Your task to perform on an android device: Play the last video I watched on Youtube Image 0: 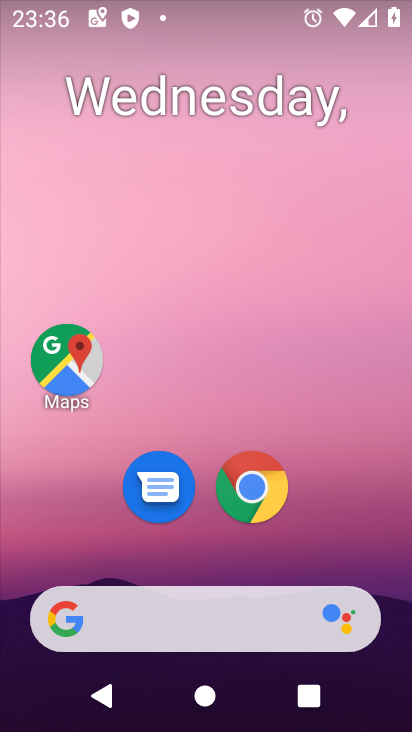
Step 0: drag from (358, 564) to (330, 8)
Your task to perform on an android device: Play the last video I watched on Youtube Image 1: 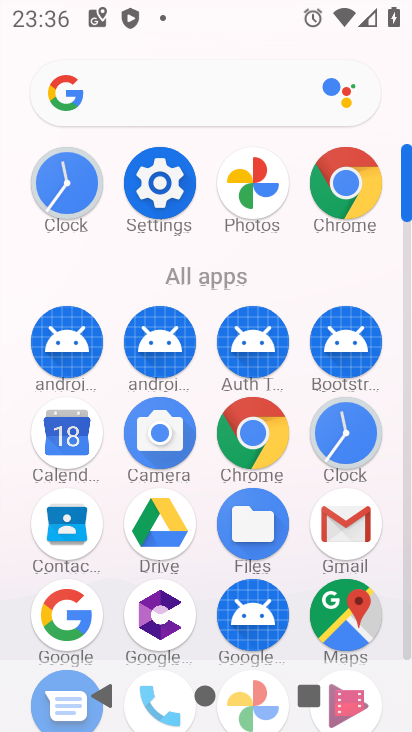
Step 1: drag from (407, 571) to (400, 527)
Your task to perform on an android device: Play the last video I watched on Youtube Image 2: 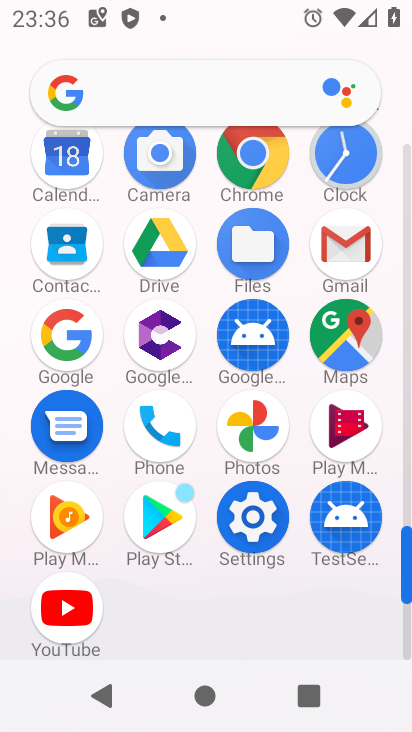
Step 2: click (67, 608)
Your task to perform on an android device: Play the last video I watched on Youtube Image 3: 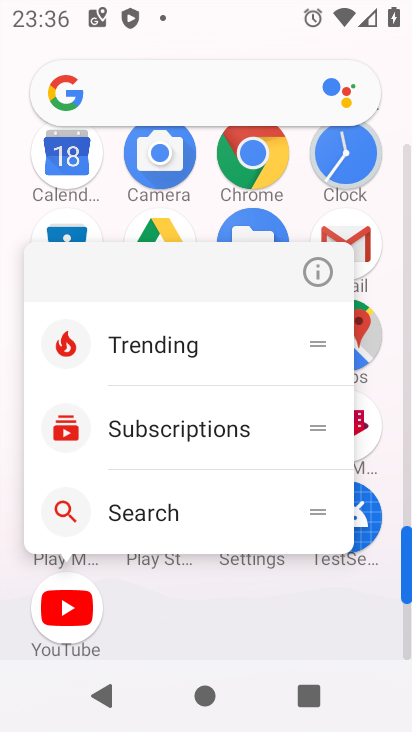
Step 3: click (67, 608)
Your task to perform on an android device: Play the last video I watched on Youtube Image 4: 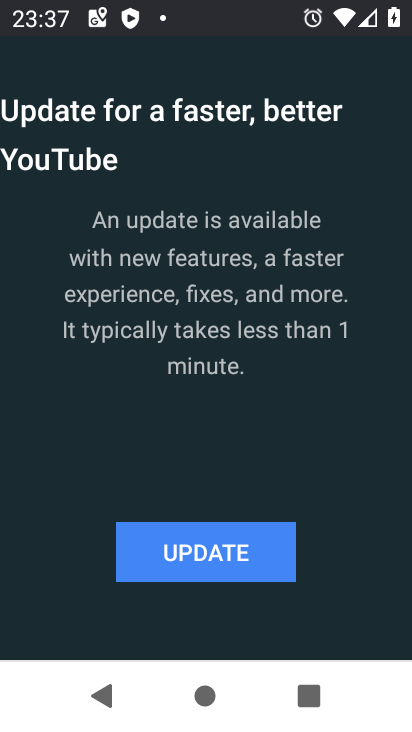
Step 4: click (200, 562)
Your task to perform on an android device: Play the last video I watched on Youtube Image 5: 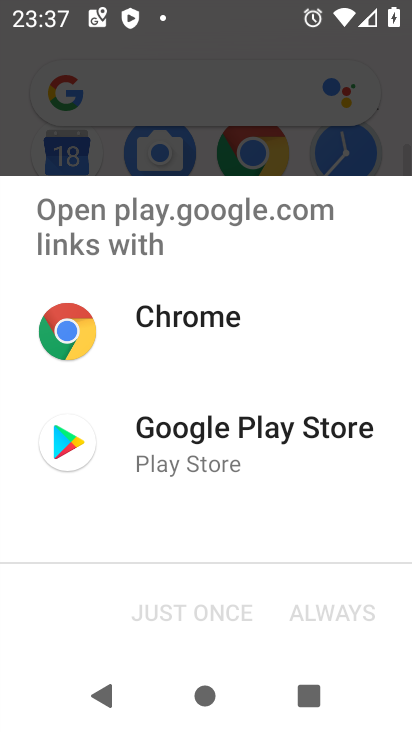
Step 5: click (181, 453)
Your task to perform on an android device: Play the last video I watched on Youtube Image 6: 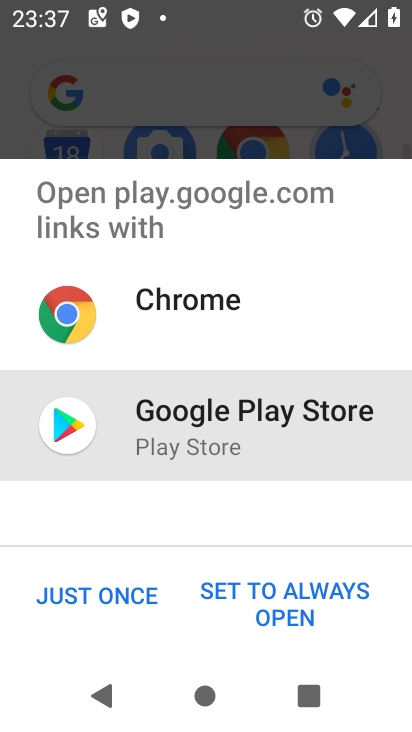
Step 6: click (73, 588)
Your task to perform on an android device: Play the last video I watched on Youtube Image 7: 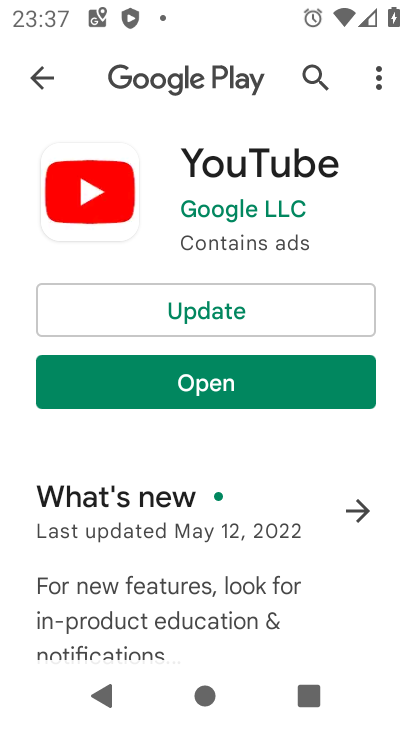
Step 7: click (195, 301)
Your task to perform on an android device: Play the last video I watched on Youtube Image 8: 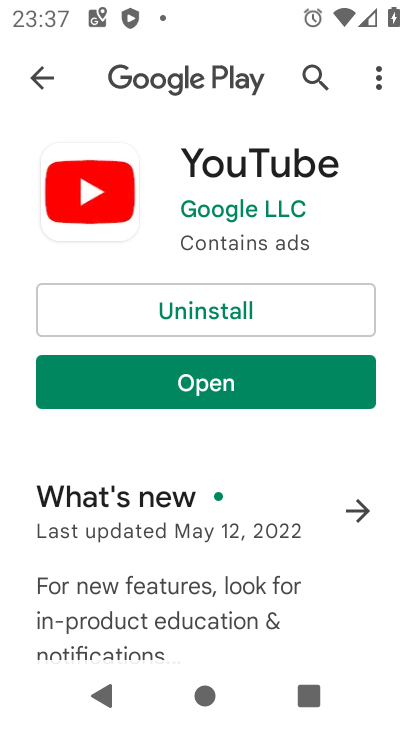
Step 8: click (227, 394)
Your task to perform on an android device: Play the last video I watched on Youtube Image 9: 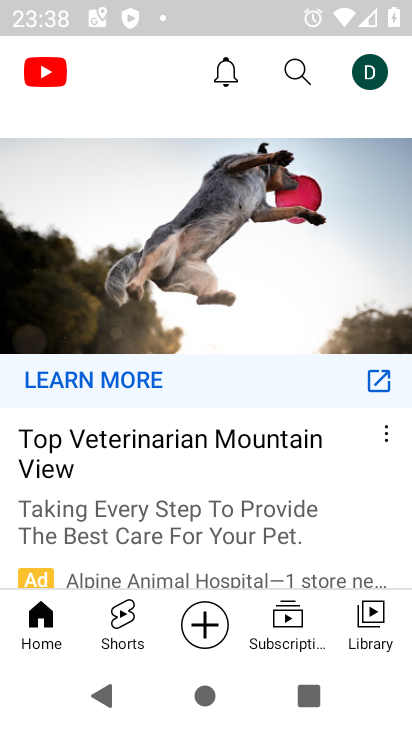
Step 9: click (361, 635)
Your task to perform on an android device: Play the last video I watched on Youtube Image 10: 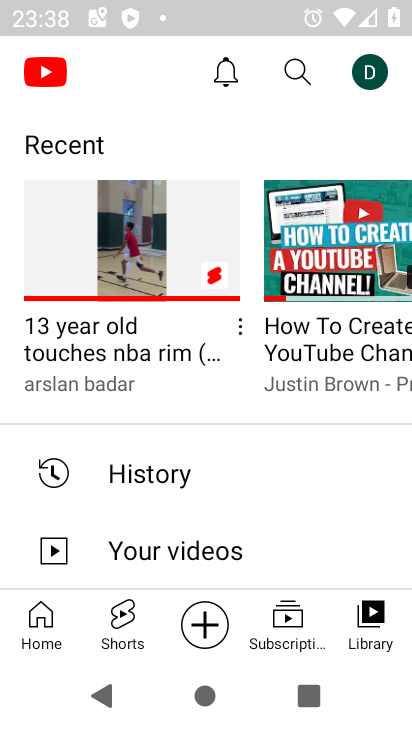
Step 10: click (122, 472)
Your task to perform on an android device: Play the last video I watched on Youtube Image 11: 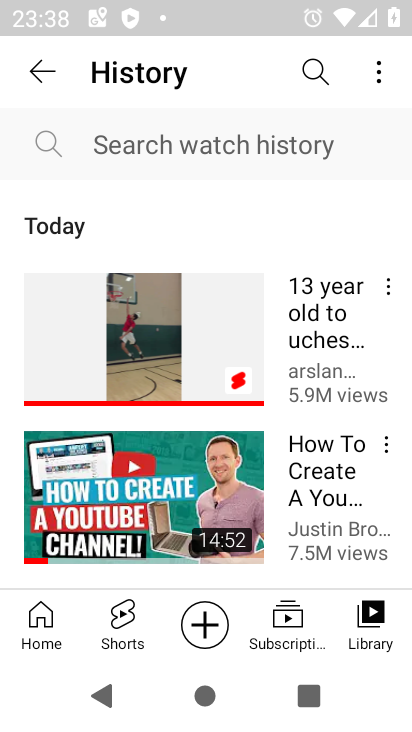
Step 11: click (148, 342)
Your task to perform on an android device: Play the last video I watched on Youtube Image 12: 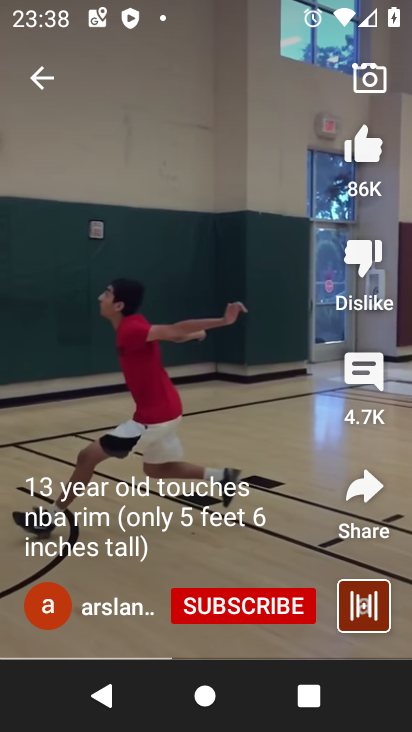
Step 12: click (142, 410)
Your task to perform on an android device: Play the last video I watched on Youtube Image 13: 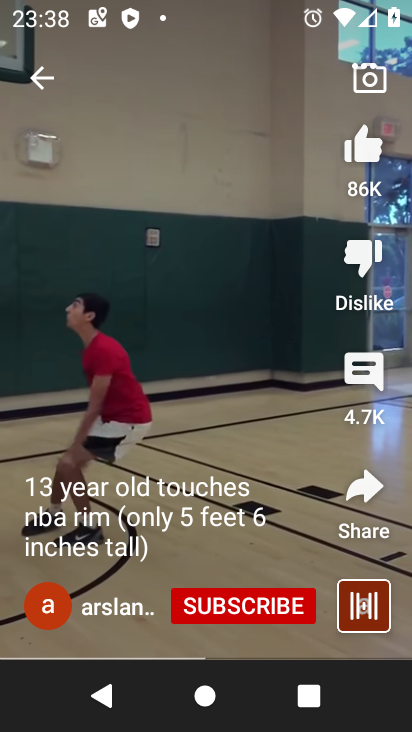
Step 13: click (189, 323)
Your task to perform on an android device: Play the last video I watched on Youtube Image 14: 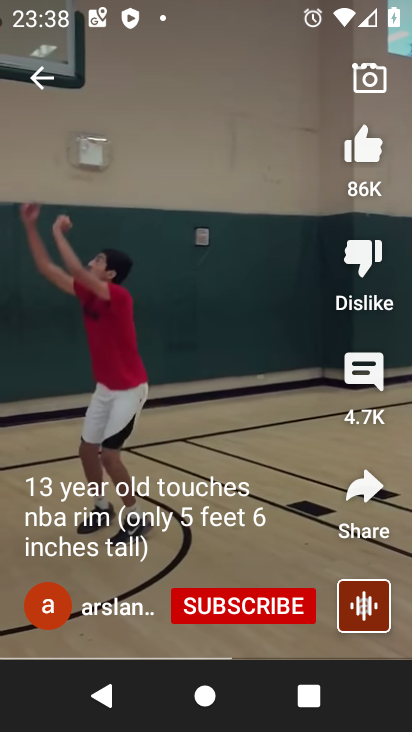
Step 14: click (189, 323)
Your task to perform on an android device: Play the last video I watched on Youtube Image 15: 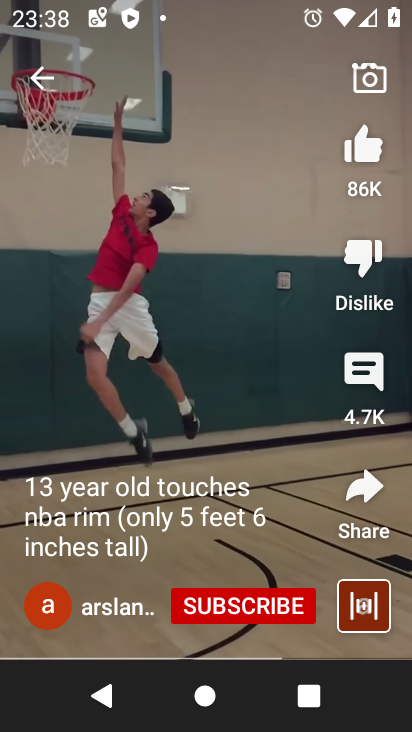
Step 15: task complete